Your task to perform on an android device: find which apps use the phone's location Image 0: 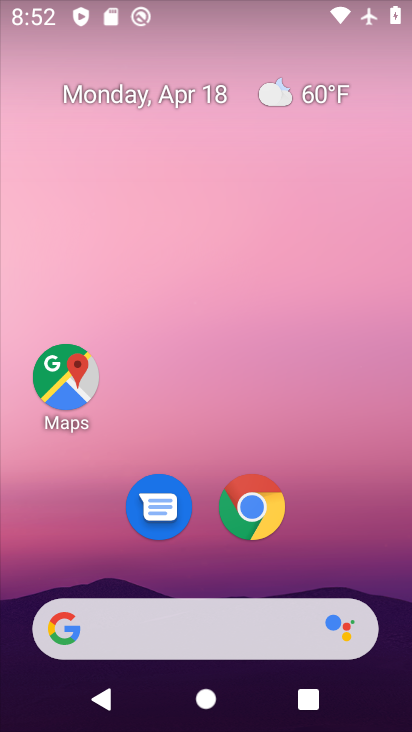
Step 0: drag from (343, 454) to (337, 143)
Your task to perform on an android device: find which apps use the phone's location Image 1: 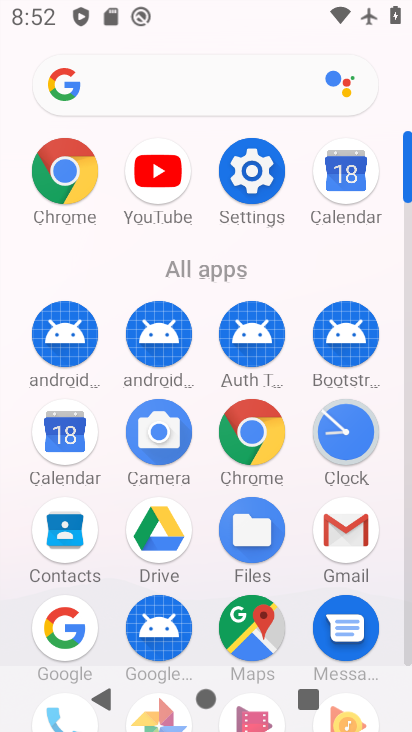
Step 1: click (263, 197)
Your task to perform on an android device: find which apps use the phone's location Image 2: 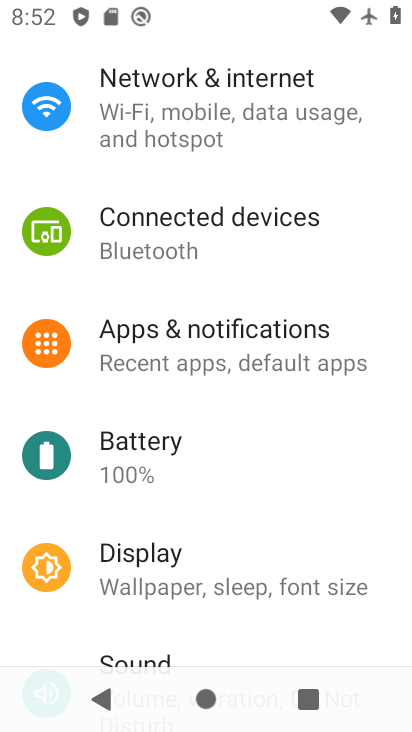
Step 2: drag from (222, 548) to (200, 250)
Your task to perform on an android device: find which apps use the phone's location Image 3: 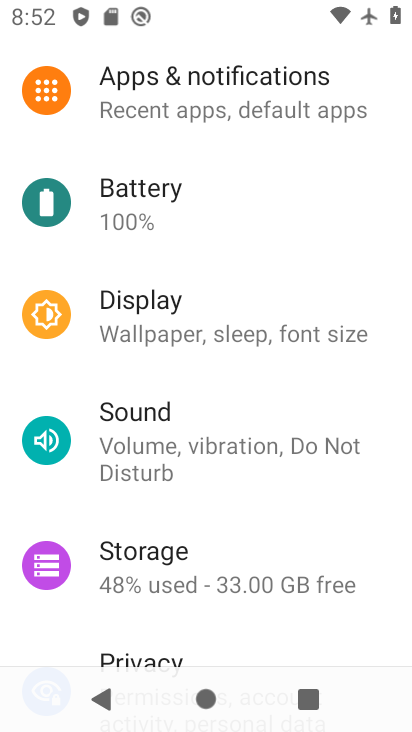
Step 3: drag from (230, 628) to (290, 647)
Your task to perform on an android device: find which apps use the phone's location Image 4: 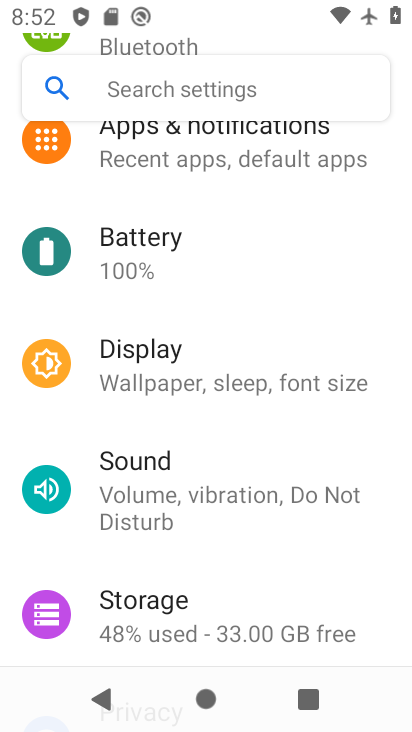
Step 4: click (265, 299)
Your task to perform on an android device: find which apps use the phone's location Image 5: 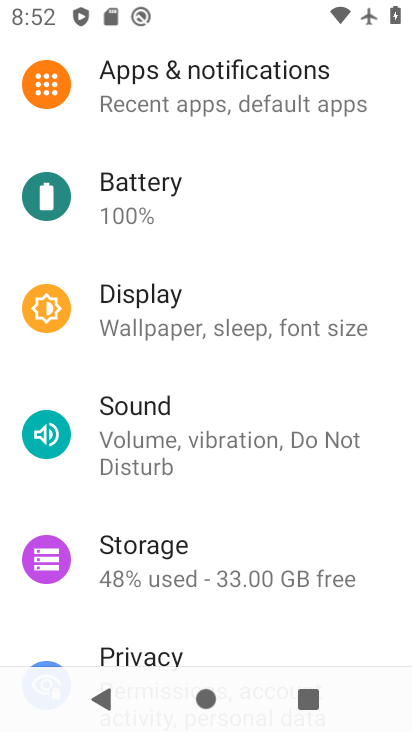
Step 5: drag from (234, 624) to (218, 255)
Your task to perform on an android device: find which apps use the phone's location Image 6: 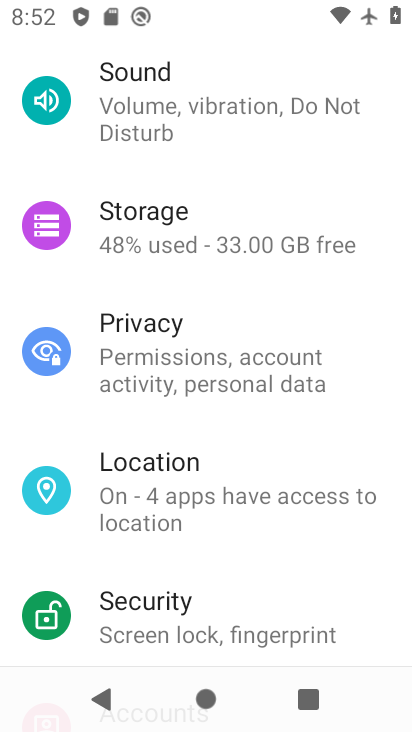
Step 6: click (227, 477)
Your task to perform on an android device: find which apps use the phone's location Image 7: 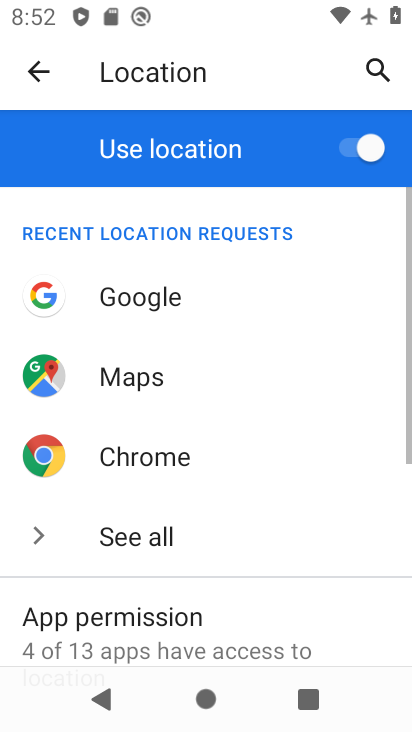
Step 7: click (133, 305)
Your task to perform on an android device: find which apps use the phone's location Image 8: 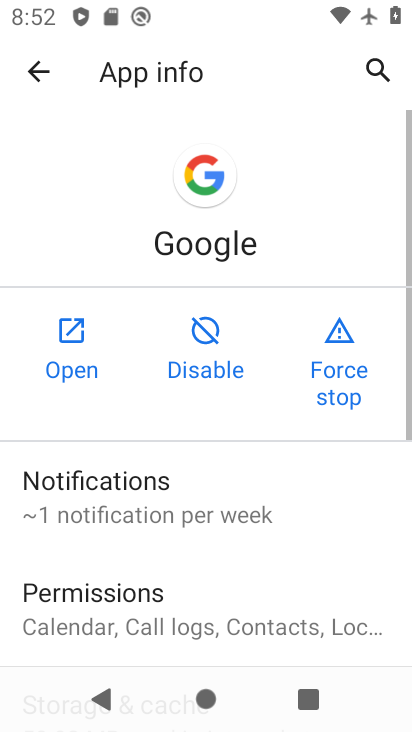
Step 8: drag from (216, 619) to (198, 464)
Your task to perform on an android device: find which apps use the phone's location Image 9: 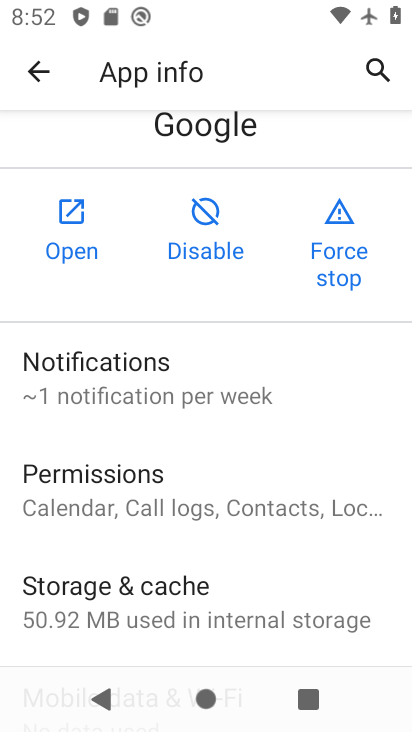
Step 9: click (194, 510)
Your task to perform on an android device: find which apps use the phone's location Image 10: 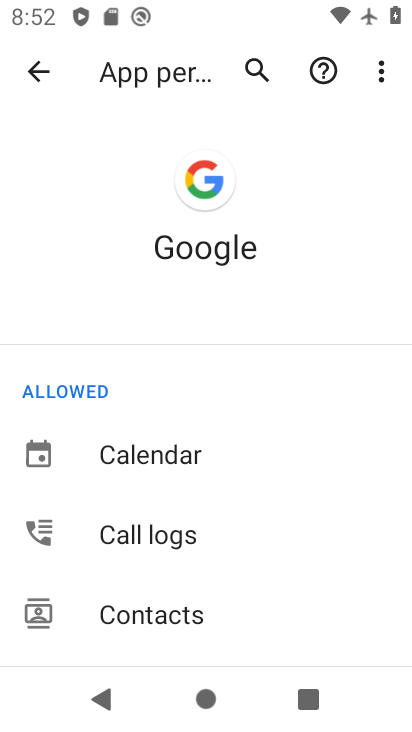
Step 10: drag from (262, 609) to (262, 370)
Your task to perform on an android device: find which apps use the phone's location Image 11: 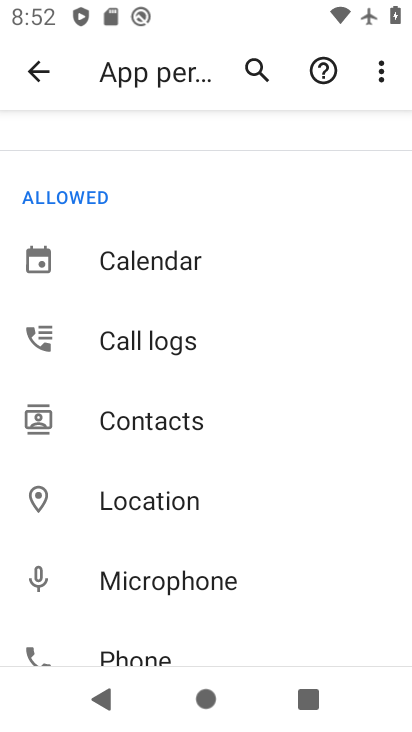
Step 11: click (204, 514)
Your task to perform on an android device: find which apps use the phone's location Image 12: 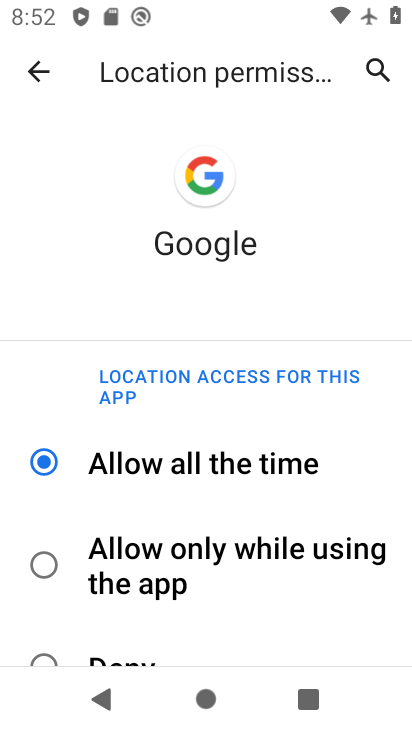
Step 12: task complete